Your task to perform on an android device: toggle translation in the chrome app Image 0: 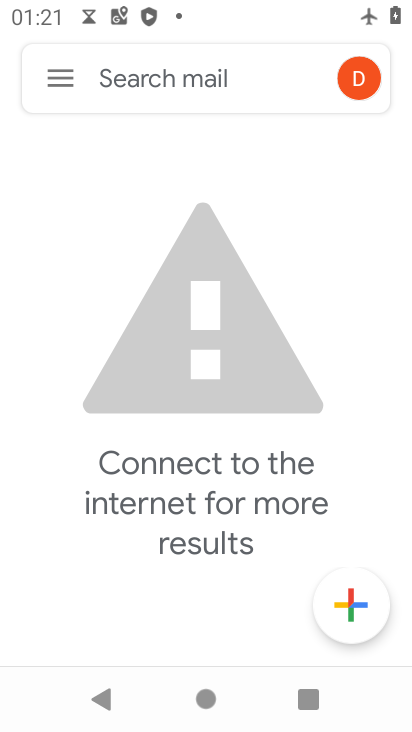
Step 0: click (55, 74)
Your task to perform on an android device: toggle translation in the chrome app Image 1: 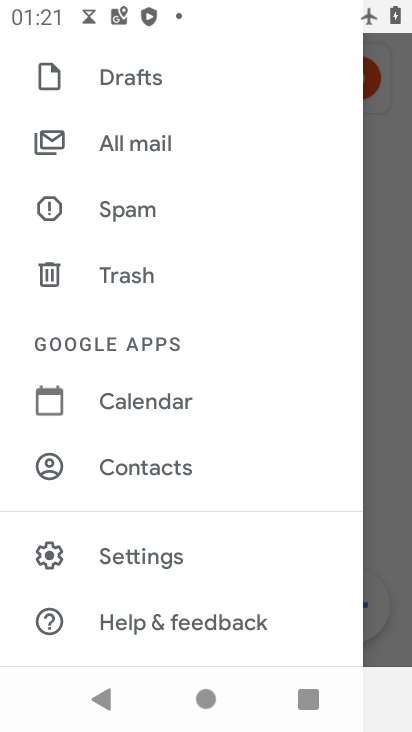
Step 1: press home button
Your task to perform on an android device: toggle translation in the chrome app Image 2: 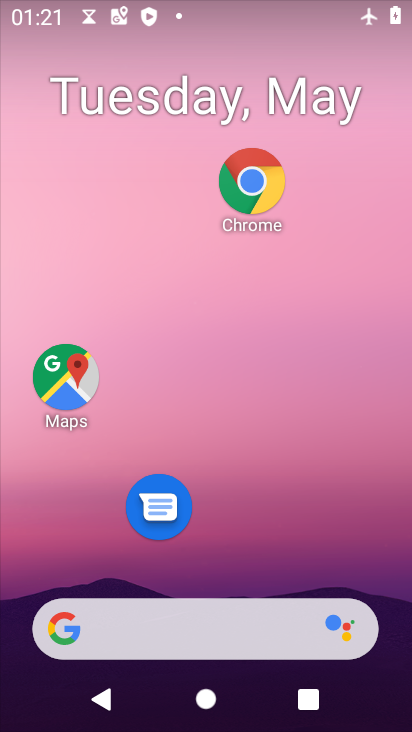
Step 2: drag from (275, 528) to (305, 254)
Your task to perform on an android device: toggle translation in the chrome app Image 3: 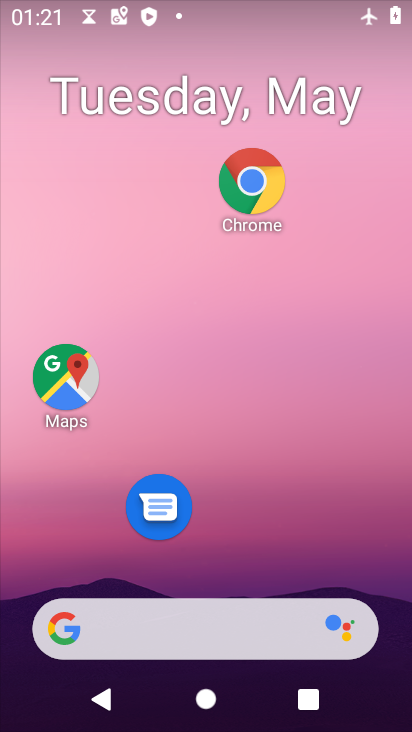
Step 3: click (242, 171)
Your task to perform on an android device: toggle translation in the chrome app Image 4: 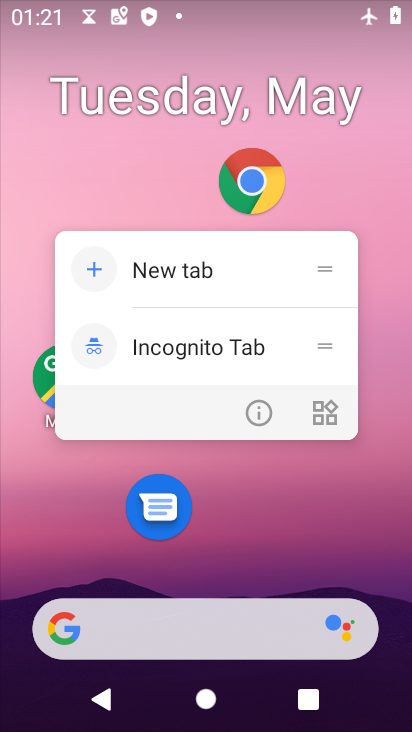
Step 4: click (242, 170)
Your task to perform on an android device: toggle translation in the chrome app Image 5: 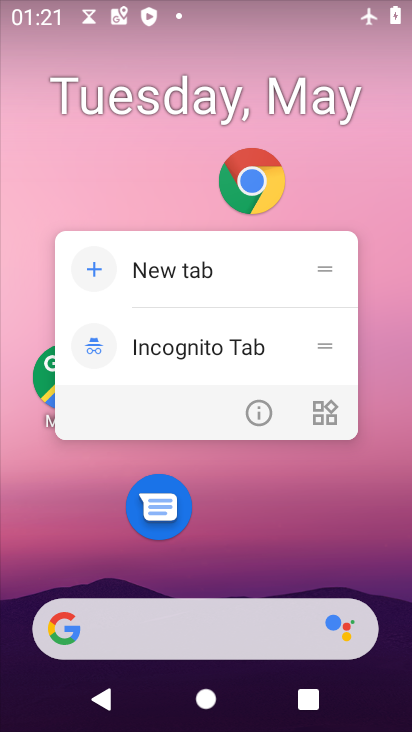
Step 5: click (259, 177)
Your task to perform on an android device: toggle translation in the chrome app Image 6: 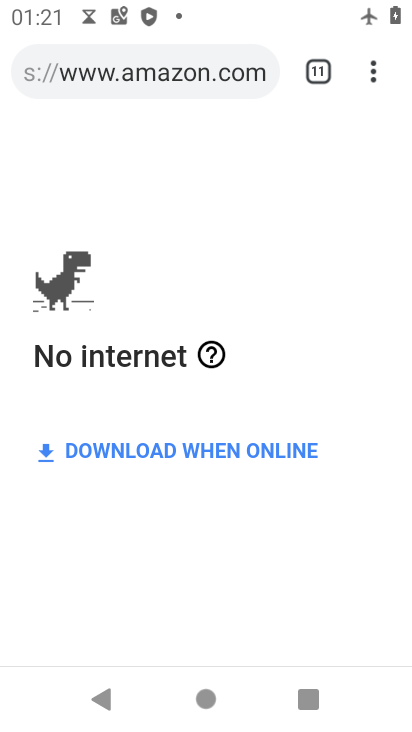
Step 6: click (380, 71)
Your task to perform on an android device: toggle translation in the chrome app Image 7: 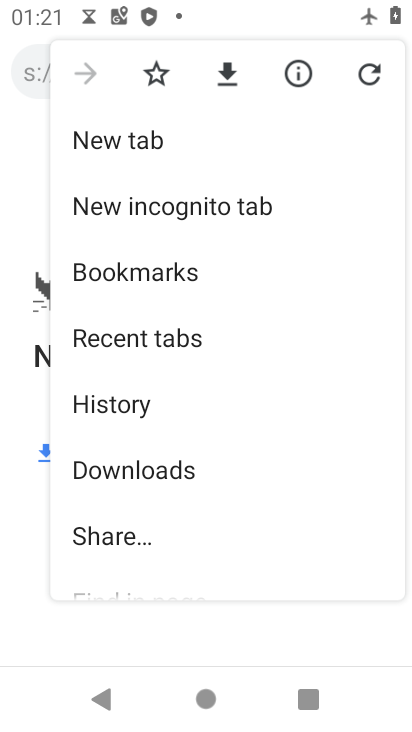
Step 7: drag from (179, 485) to (237, 166)
Your task to perform on an android device: toggle translation in the chrome app Image 8: 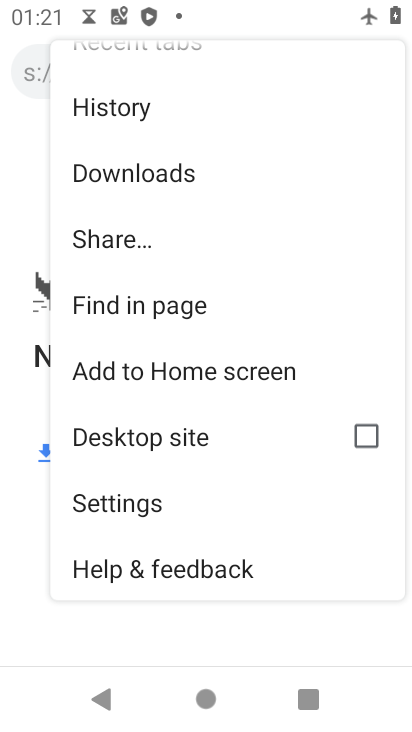
Step 8: click (147, 494)
Your task to perform on an android device: toggle translation in the chrome app Image 9: 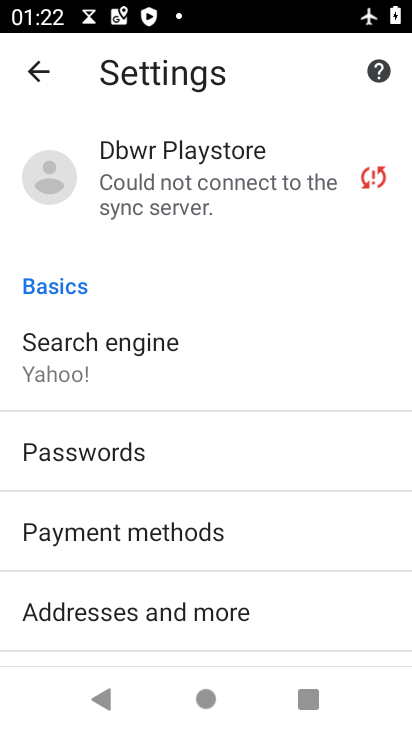
Step 9: drag from (193, 544) to (325, 149)
Your task to perform on an android device: toggle translation in the chrome app Image 10: 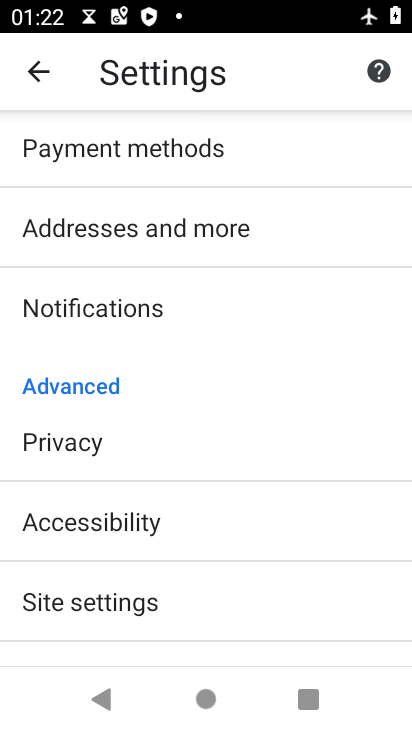
Step 10: drag from (239, 572) to (293, 264)
Your task to perform on an android device: toggle translation in the chrome app Image 11: 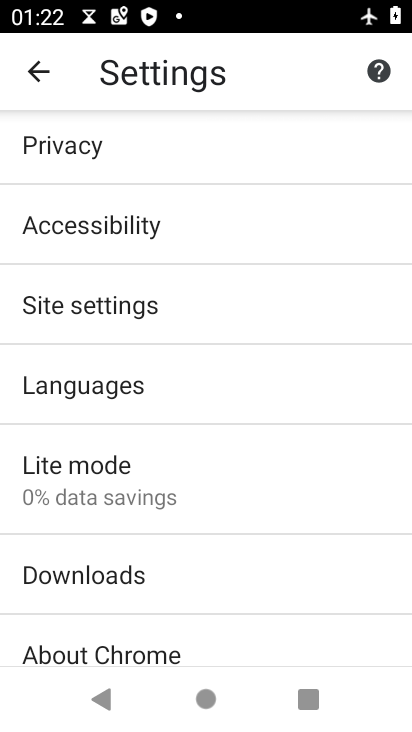
Step 11: click (130, 297)
Your task to perform on an android device: toggle translation in the chrome app Image 12: 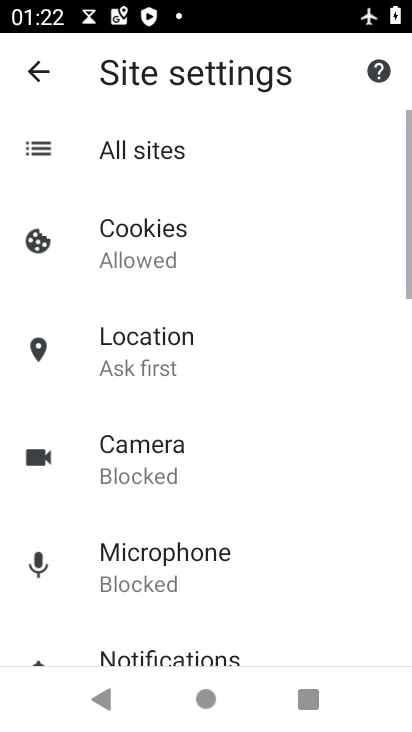
Step 12: click (17, 69)
Your task to perform on an android device: toggle translation in the chrome app Image 13: 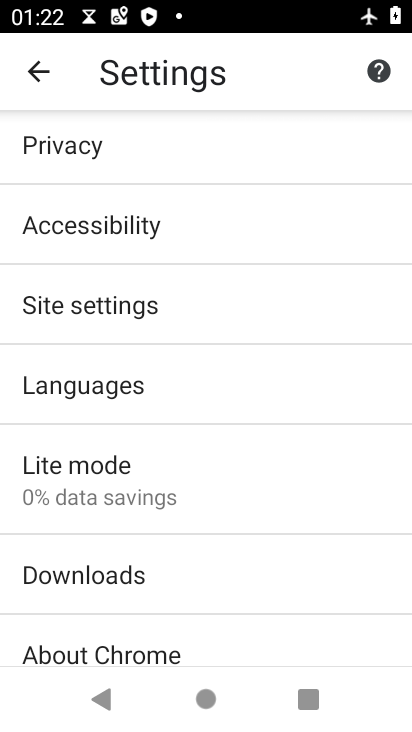
Step 13: click (160, 377)
Your task to perform on an android device: toggle translation in the chrome app Image 14: 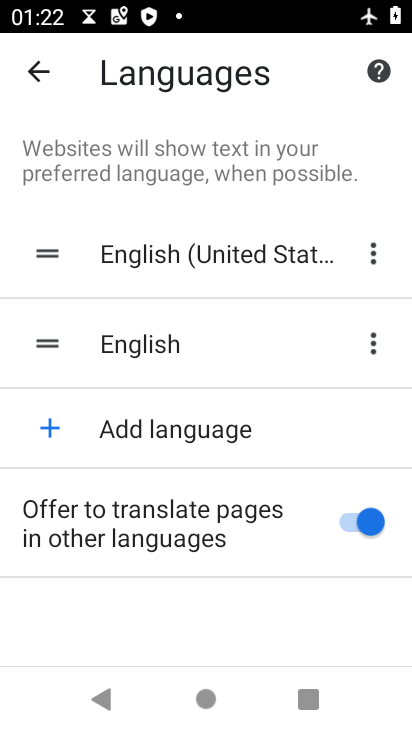
Step 14: click (347, 520)
Your task to perform on an android device: toggle translation in the chrome app Image 15: 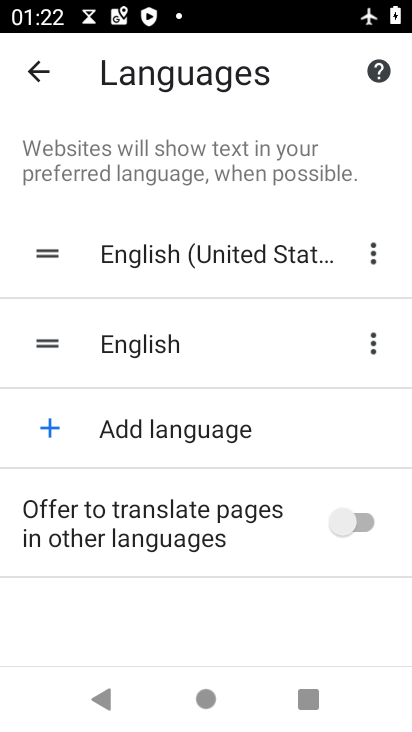
Step 15: task complete